Your task to perform on an android device: Open Google Chrome and click the shortcut for Amazon.com Image 0: 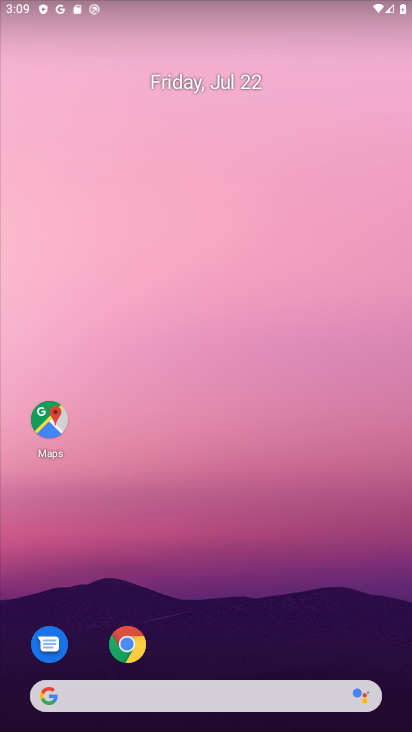
Step 0: click (126, 643)
Your task to perform on an android device: Open Google Chrome and click the shortcut for Amazon.com Image 1: 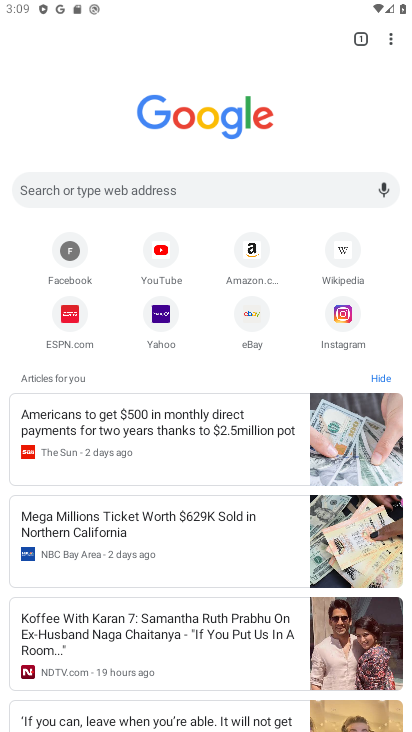
Step 1: click (254, 255)
Your task to perform on an android device: Open Google Chrome and click the shortcut for Amazon.com Image 2: 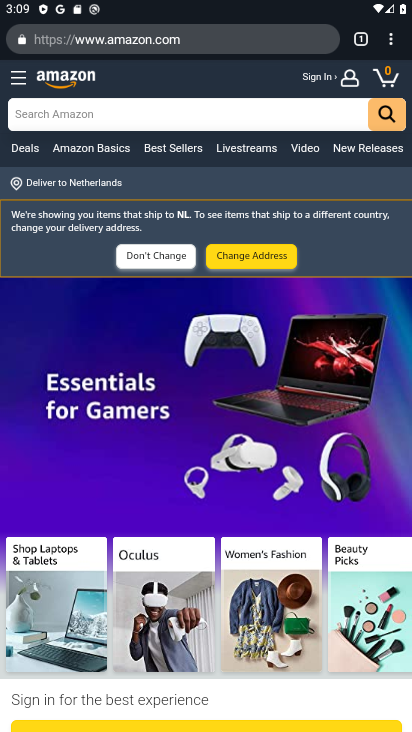
Step 2: task complete